Your task to perform on an android device: open app "Google Drive" Image 0: 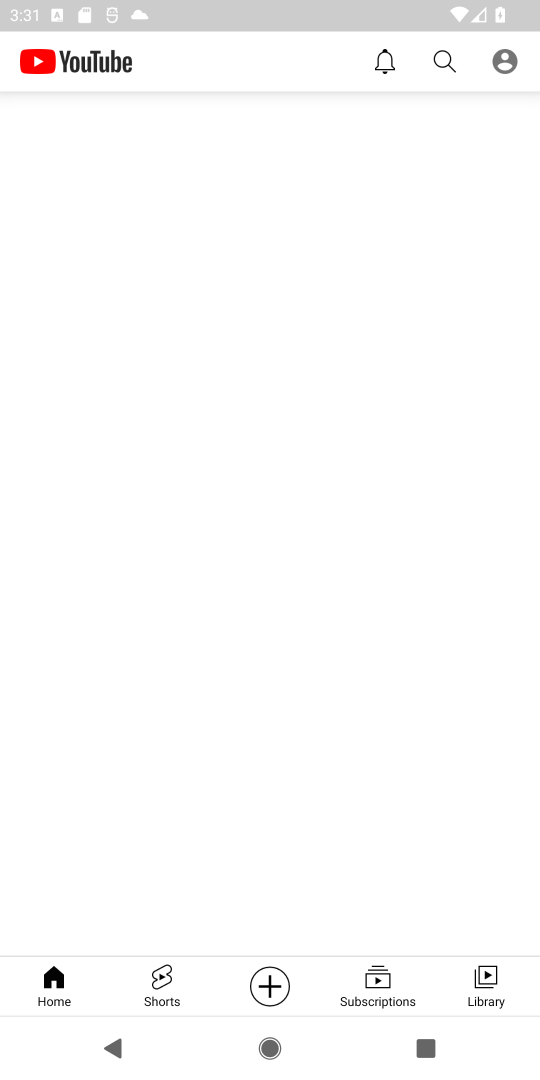
Step 0: press home button
Your task to perform on an android device: open app "Google Drive" Image 1: 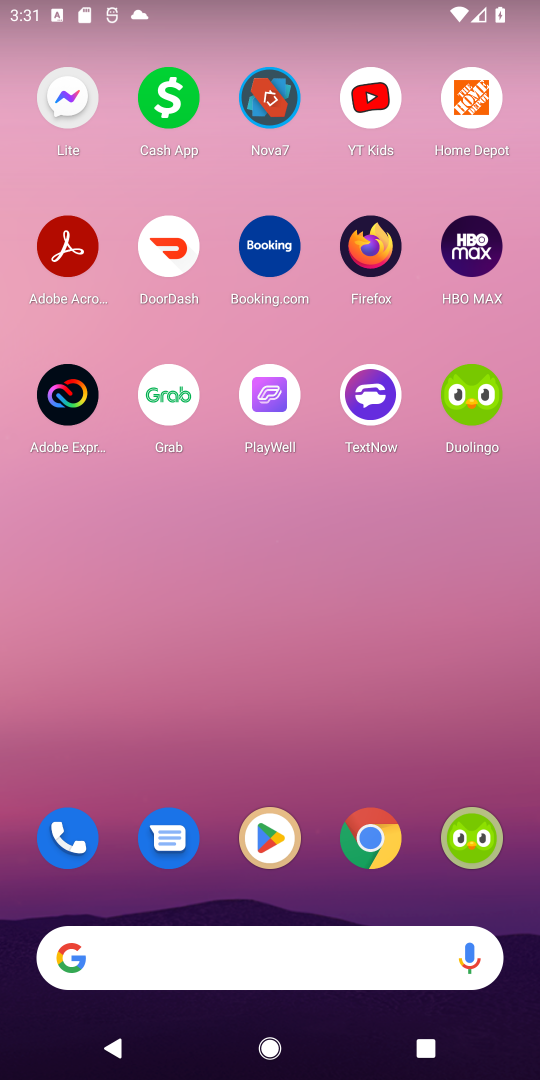
Step 1: click (271, 856)
Your task to perform on an android device: open app "Google Drive" Image 2: 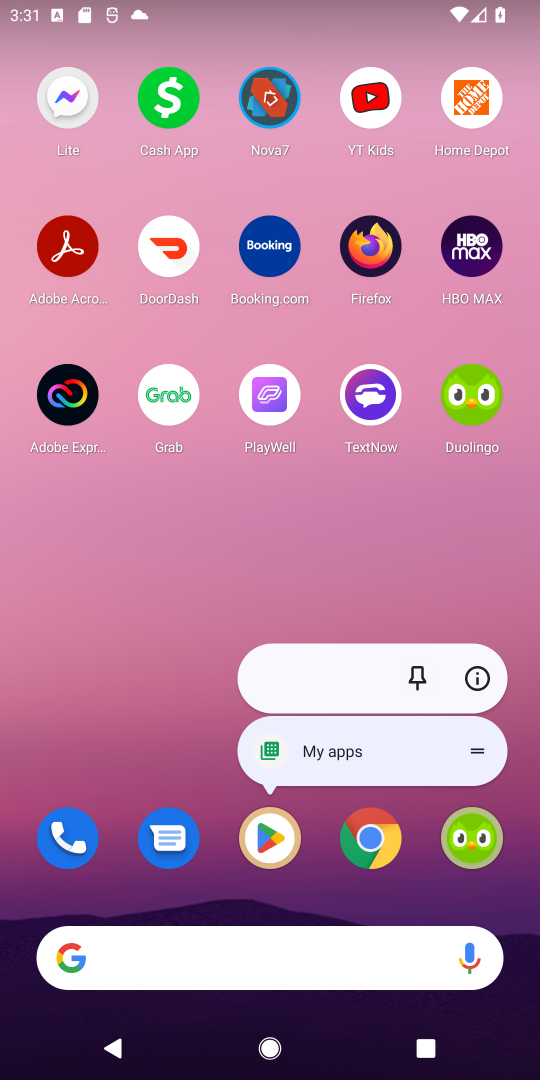
Step 2: click (271, 856)
Your task to perform on an android device: open app "Google Drive" Image 3: 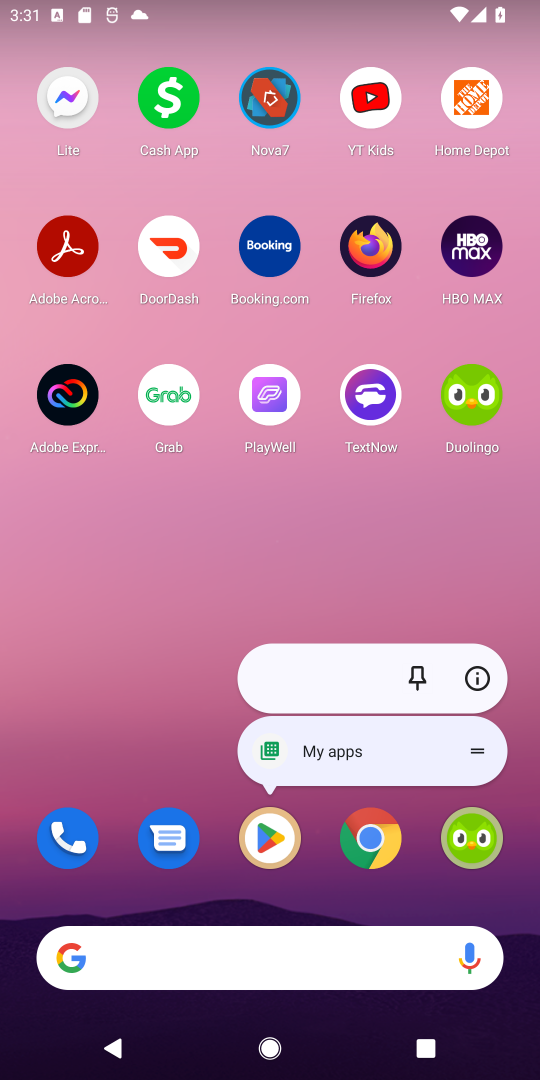
Step 3: click (261, 832)
Your task to perform on an android device: open app "Google Drive" Image 4: 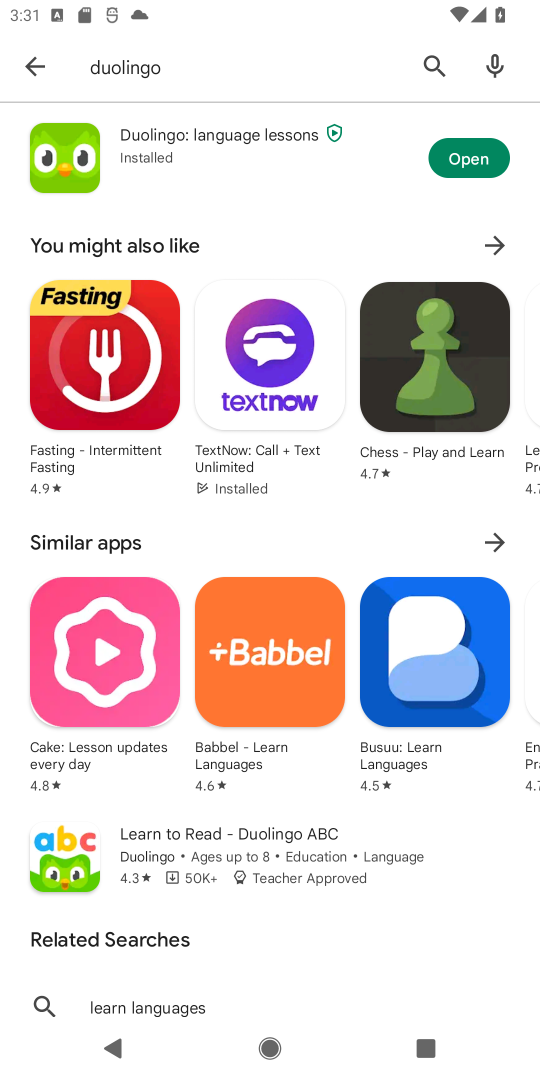
Step 4: click (38, 64)
Your task to perform on an android device: open app "Google Drive" Image 5: 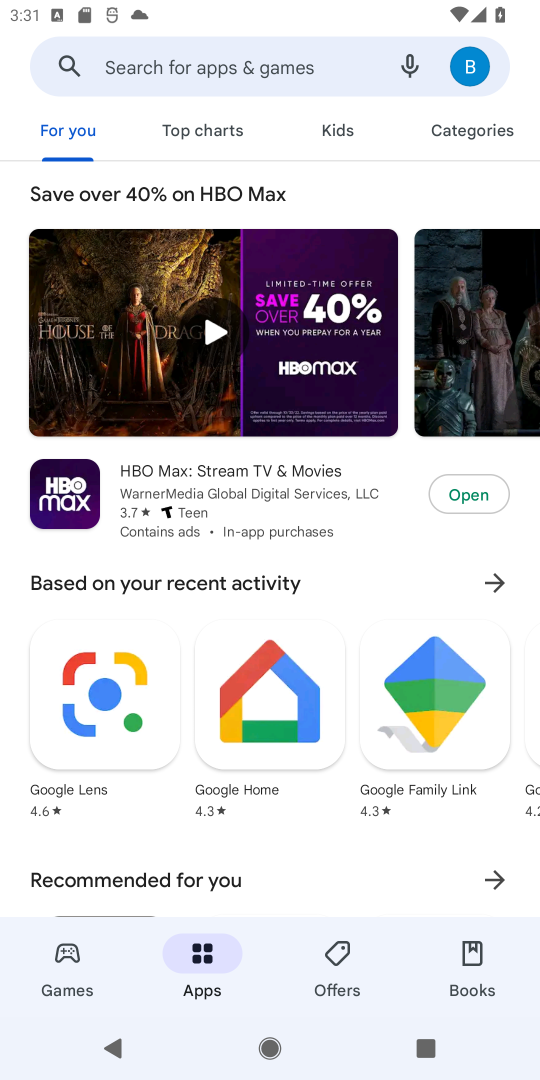
Step 5: click (97, 49)
Your task to perform on an android device: open app "Google Drive" Image 6: 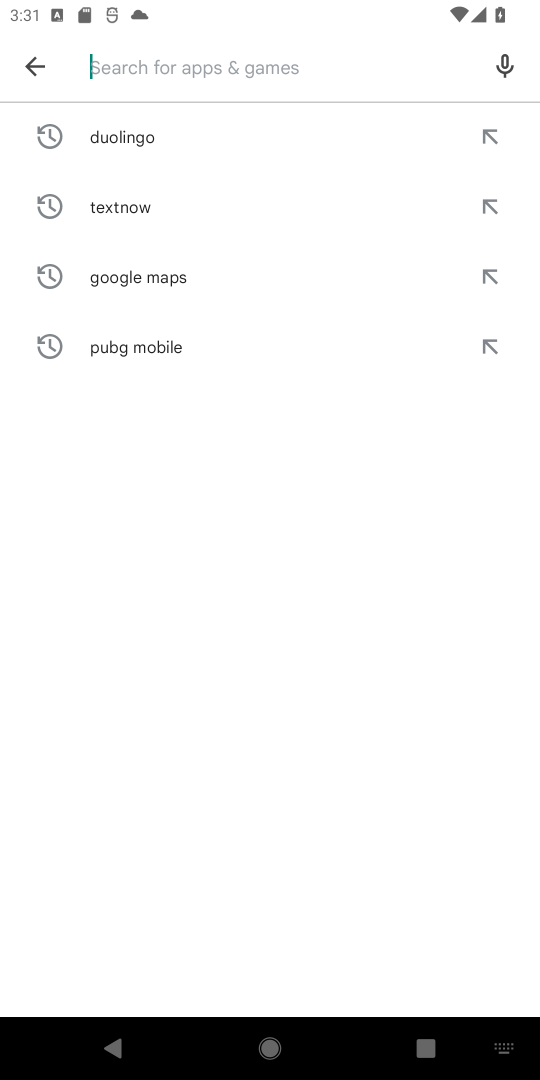
Step 6: type "Google Drive"
Your task to perform on an android device: open app "Google Drive" Image 7: 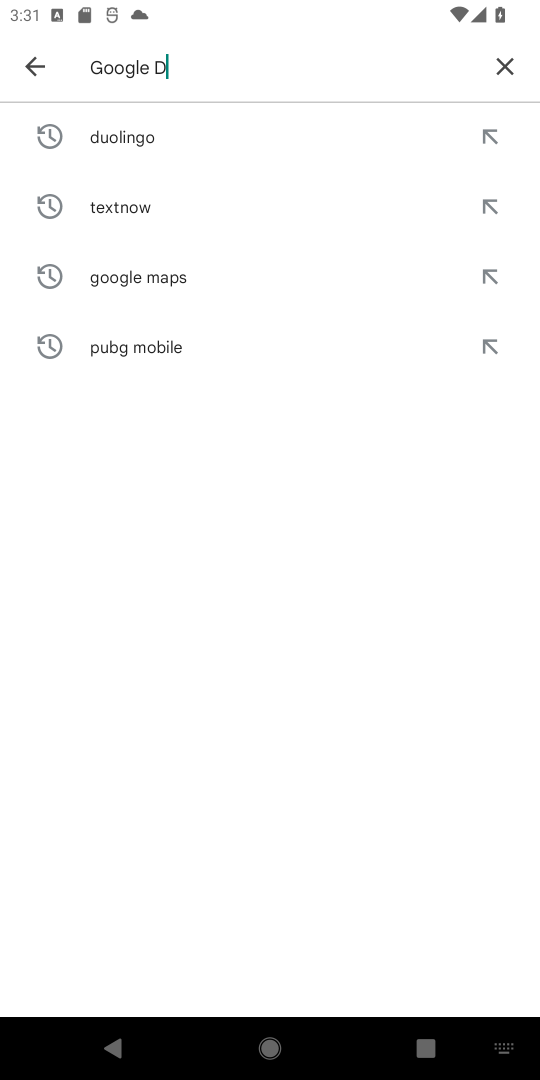
Step 7: type ""
Your task to perform on an android device: open app "Google Drive" Image 8: 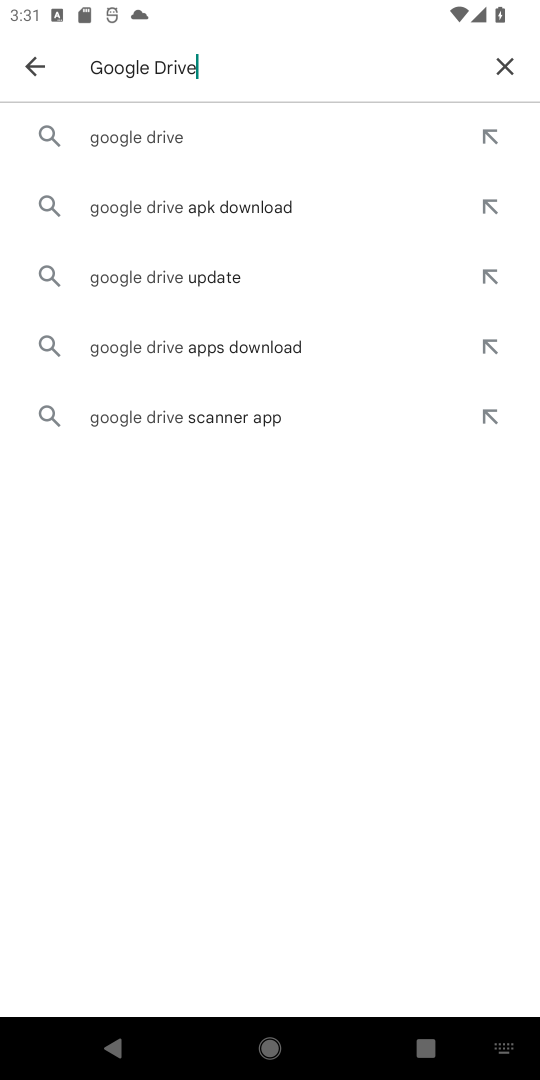
Step 8: click (130, 135)
Your task to perform on an android device: open app "Google Drive" Image 9: 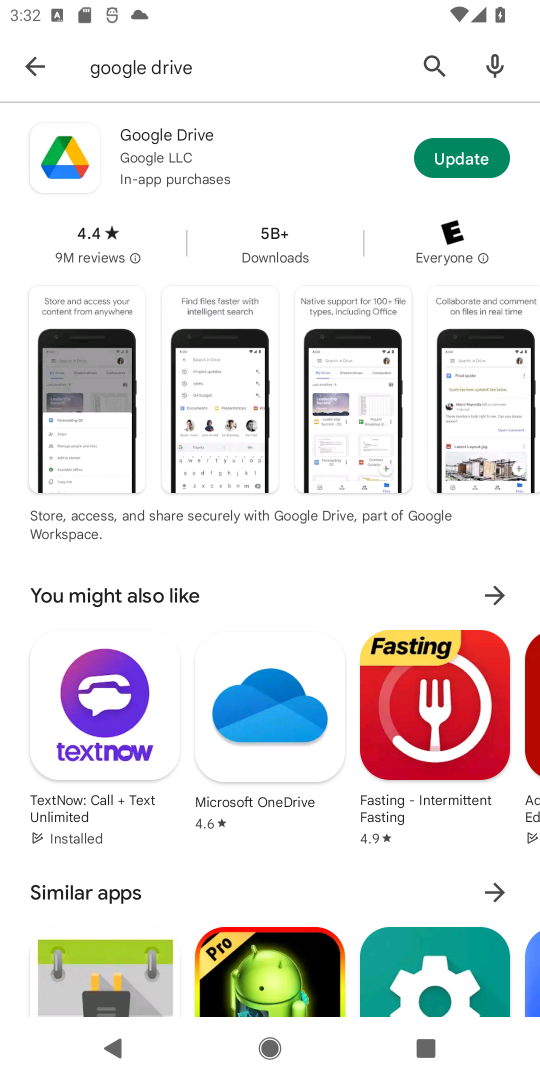
Step 9: task complete